Your task to perform on an android device: See recent photos Image 0: 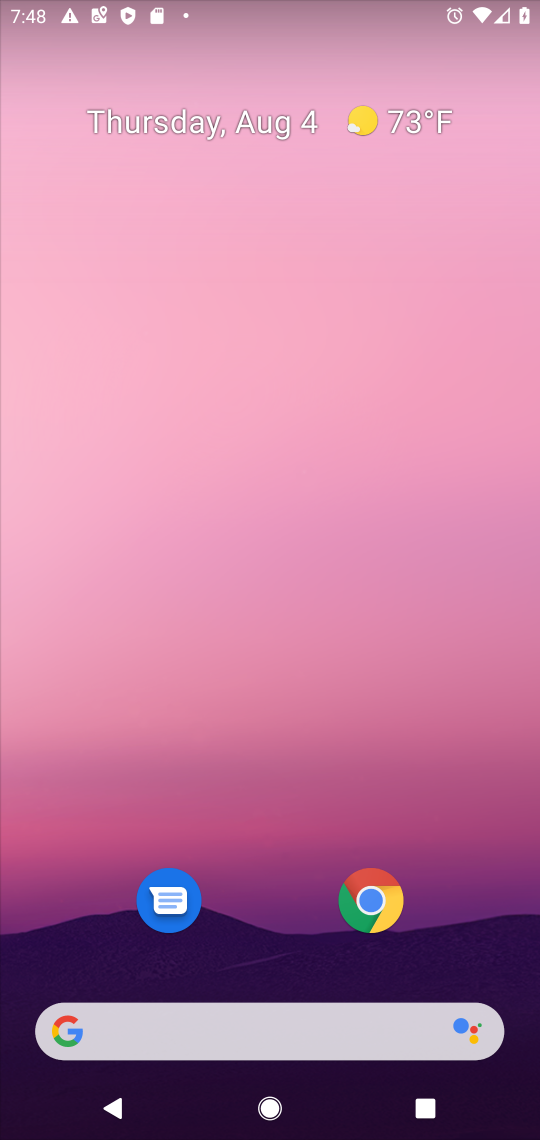
Step 0: drag from (227, 1040) to (225, 129)
Your task to perform on an android device: See recent photos Image 1: 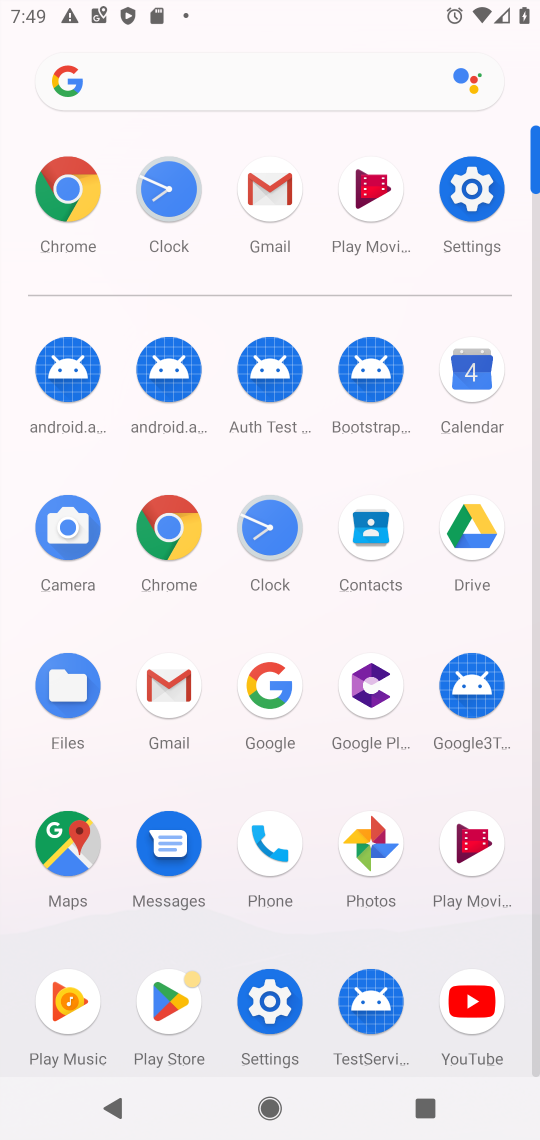
Step 1: click (371, 841)
Your task to perform on an android device: See recent photos Image 2: 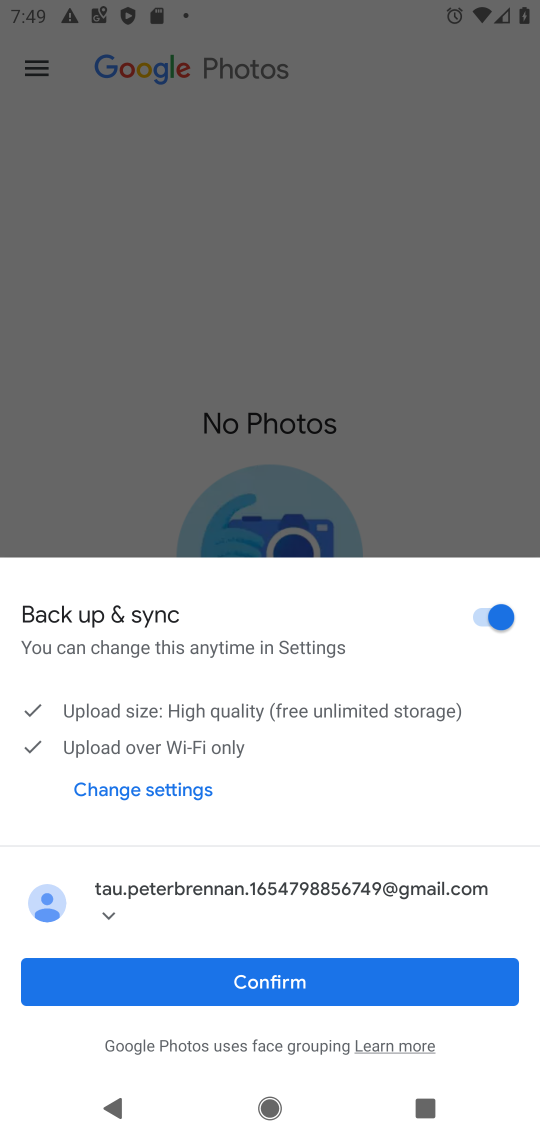
Step 2: click (292, 984)
Your task to perform on an android device: See recent photos Image 3: 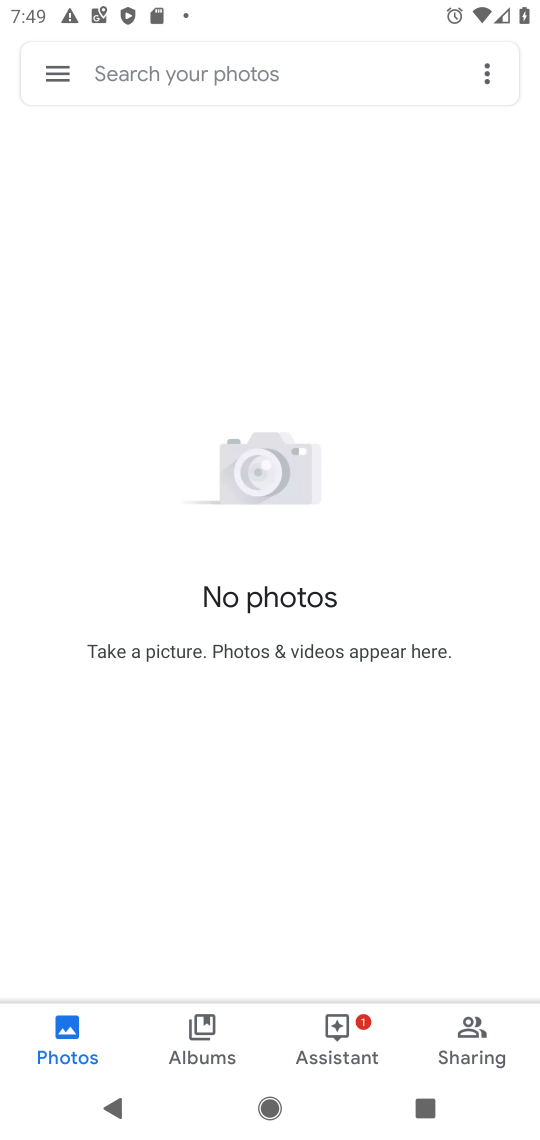
Step 3: click (202, 1028)
Your task to perform on an android device: See recent photos Image 4: 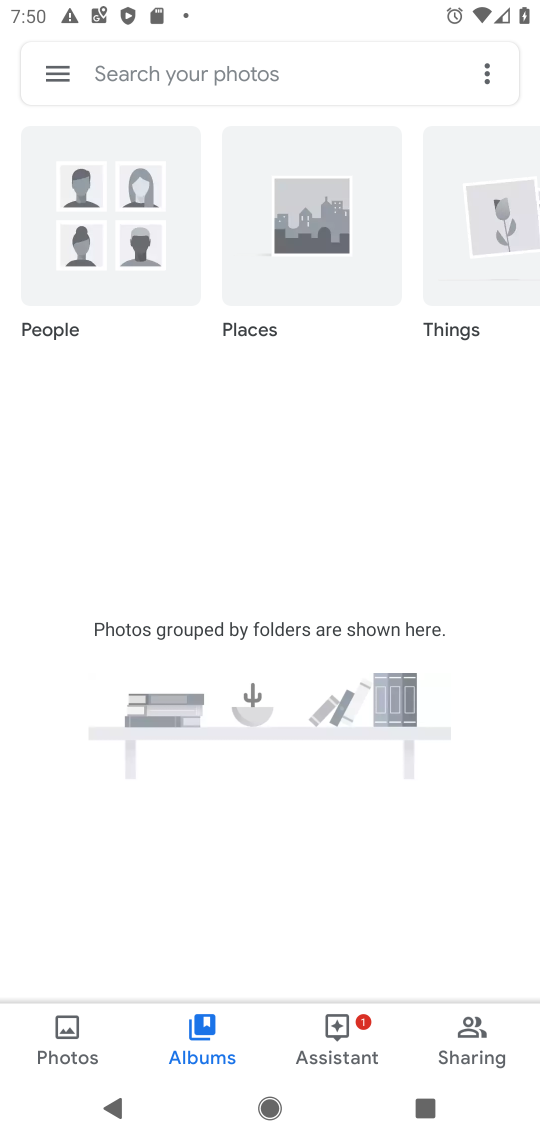
Step 4: task complete